Your task to perform on an android device: Go to CNN.com Image 0: 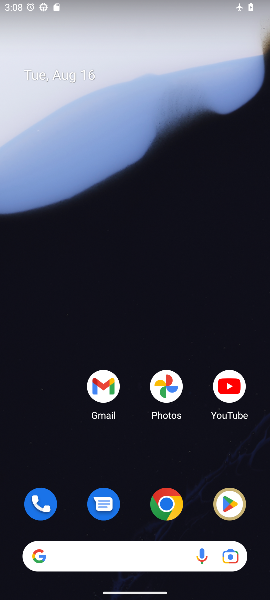
Step 0: click (165, 503)
Your task to perform on an android device: Go to CNN.com Image 1: 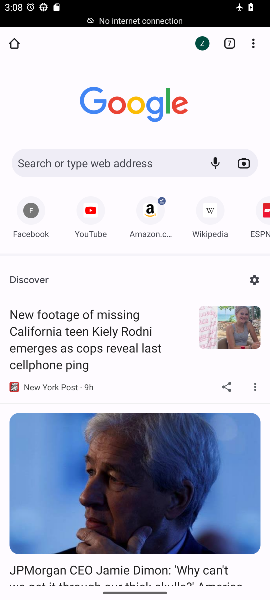
Step 1: click (100, 161)
Your task to perform on an android device: Go to CNN.com Image 2: 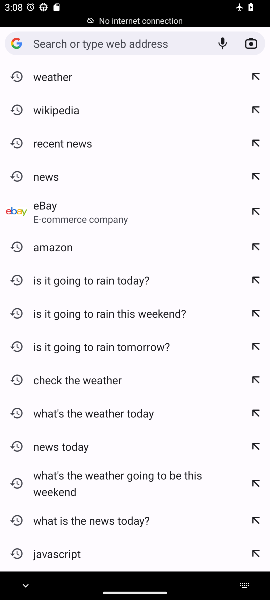
Step 2: type "cnn.com"
Your task to perform on an android device: Go to CNN.com Image 3: 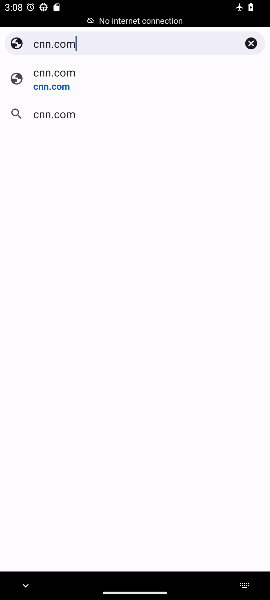
Step 3: click (56, 79)
Your task to perform on an android device: Go to CNN.com Image 4: 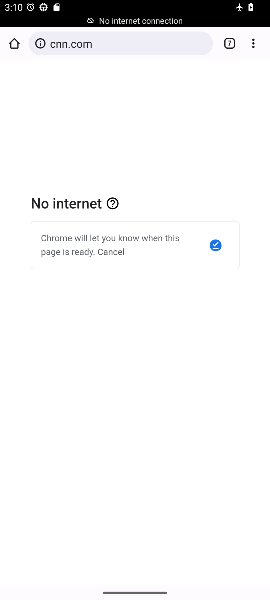
Step 4: task complete